Your task to perform on an android device: set the stopwatch Image 0: 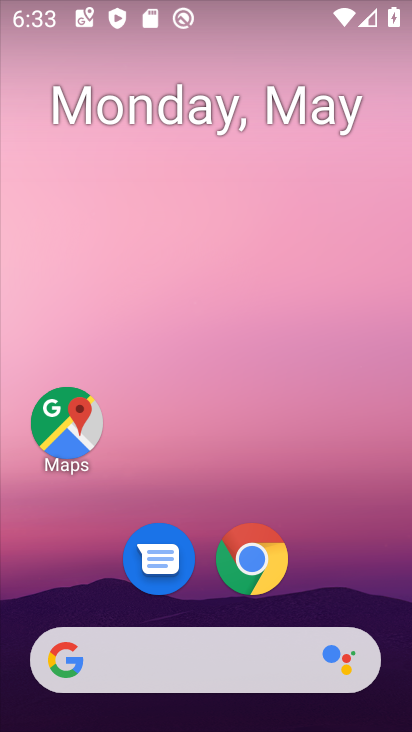
Step 0: drag from (384, 634) to (379, 13)
Your task to perform on an android device: set the stopwatch Image 1: 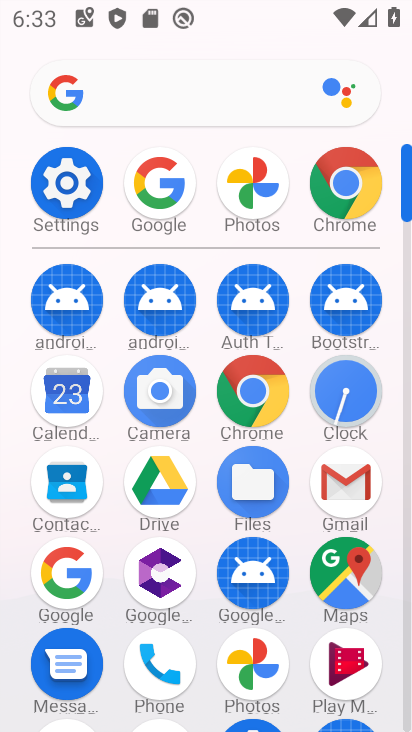
Step 1: click (365, 389)
Your task to perform on an android device: set the stopwatch Image 2: 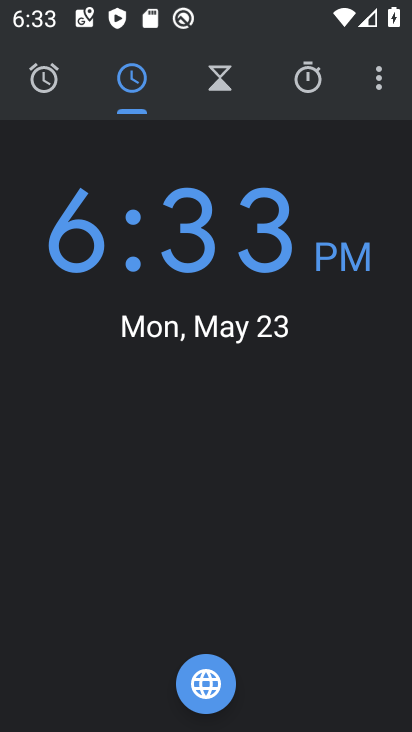
Step 2: click (312, 82)
Your task to perform on an android device: set the stopwatch Image 3: 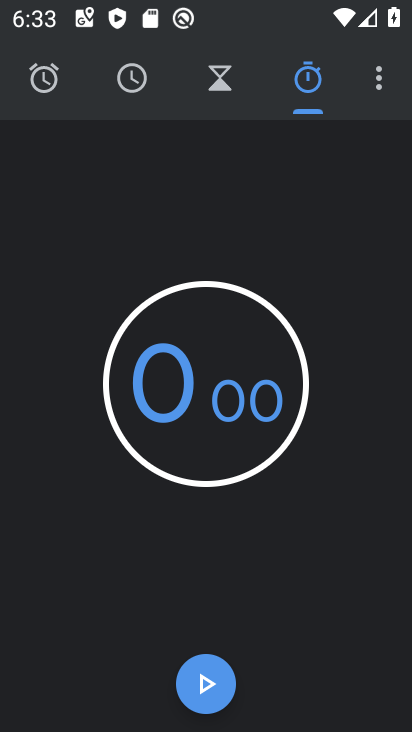
Step 3: click (213, 684)
Your task to perform on an android device: set the stopwatch Image 4: 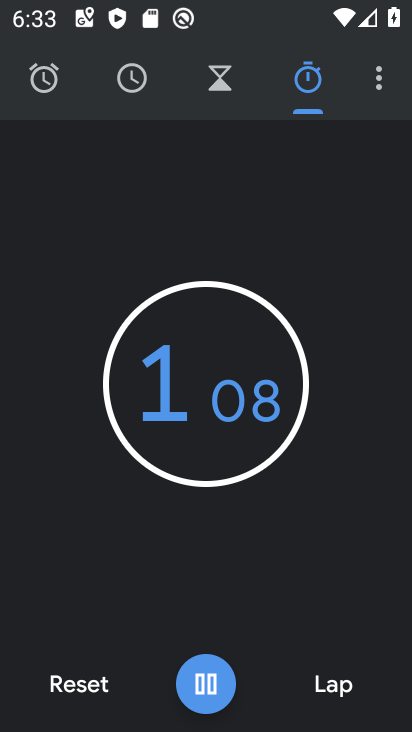
Step 4: click (213, 684)
Your task to perform on an android device: set the stopwatch Image 5: 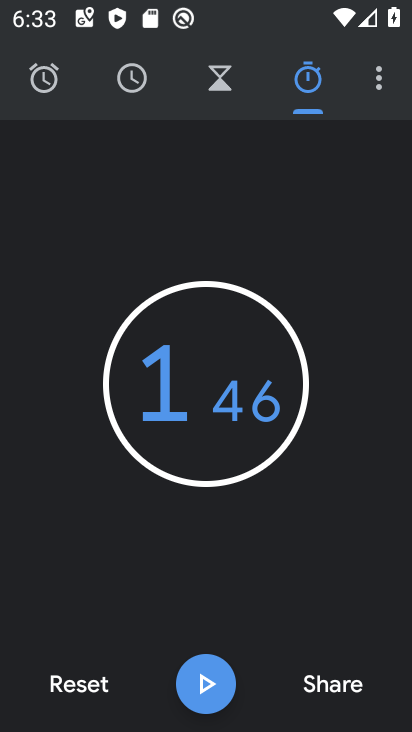
Step 5: task complete